Your task to perform on an android device: Add "acer nitro" to the cart on target, then select checkout. Image 0: 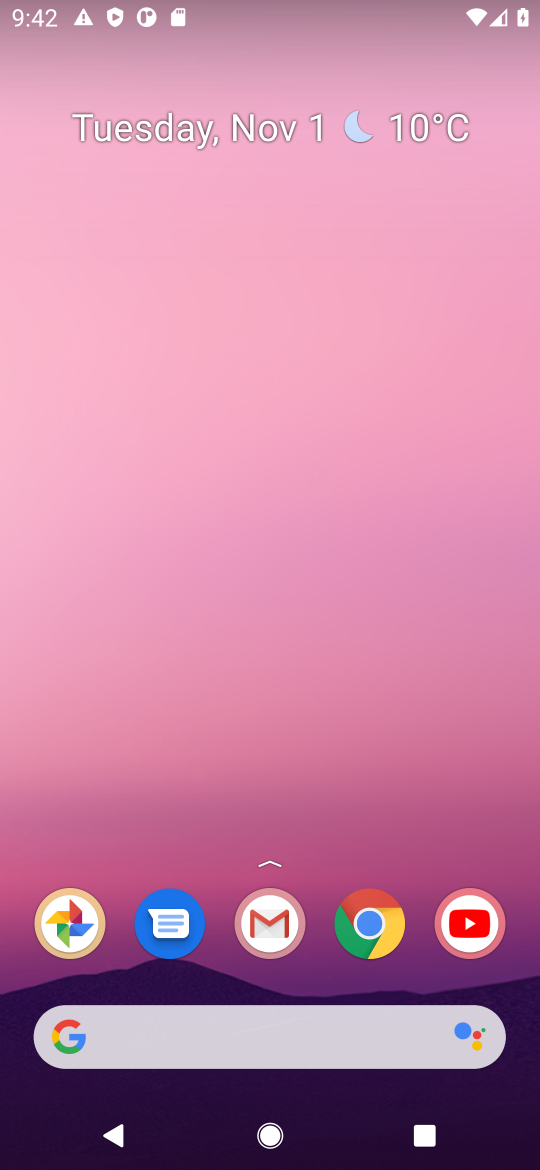
Step 0: drag from (331, 982) to (342, 113)
Your task to perform on an android device: Add "acer nitro" to the cart on target, then select checkout. Image 1: 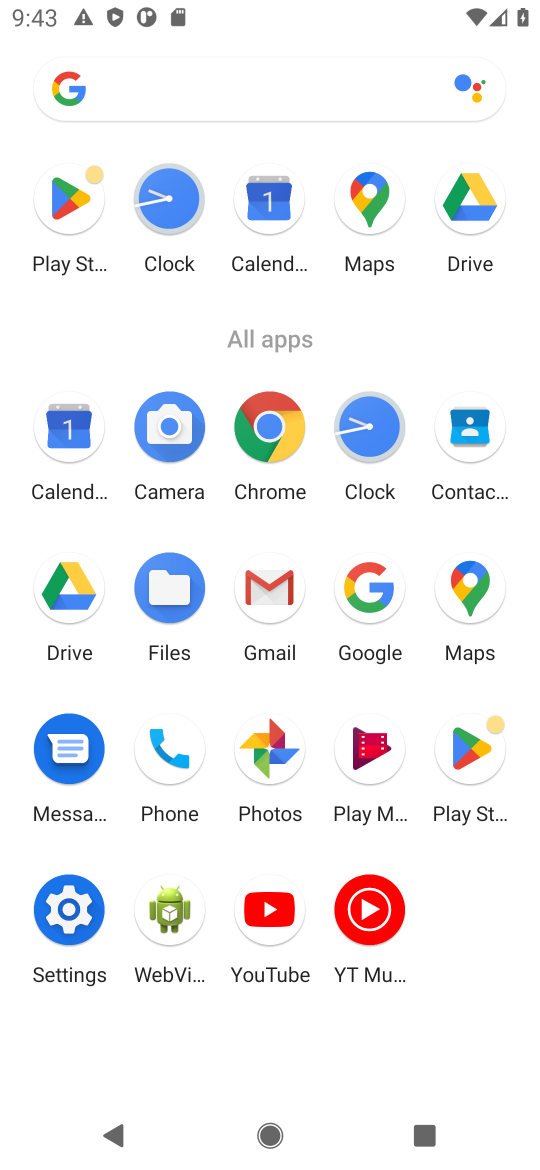
Step 1: click (270, 426)
Your task to perform on an android device: Add "acer nitro" to the cart on target, then select checkout. Image 2: 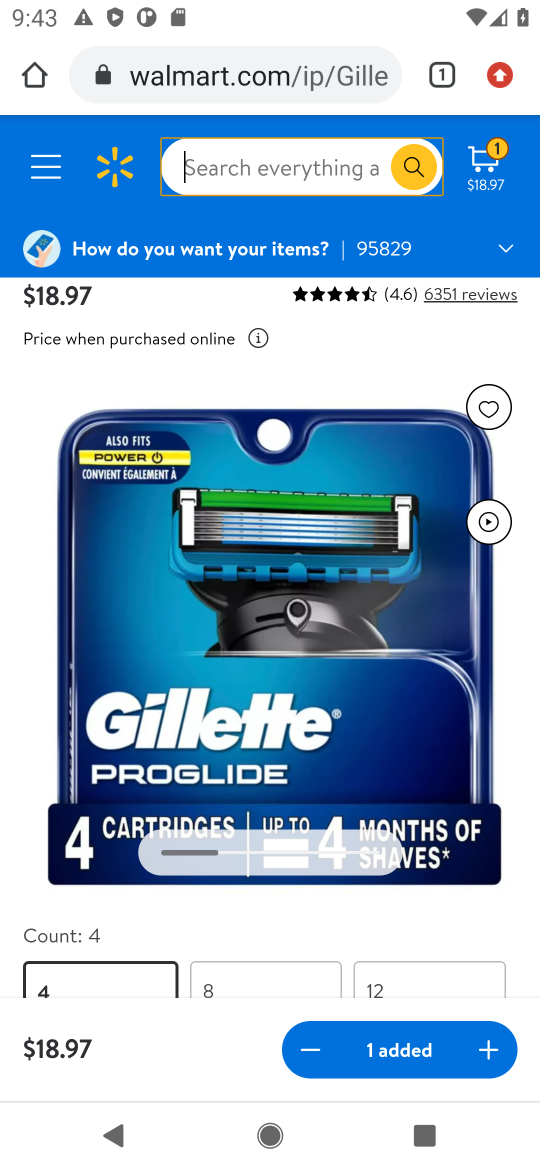
Step 2: click (326, 80)
Your task to perform on an android device: Add "acer nitro" to the cart on target, then select checkout. Image 3: 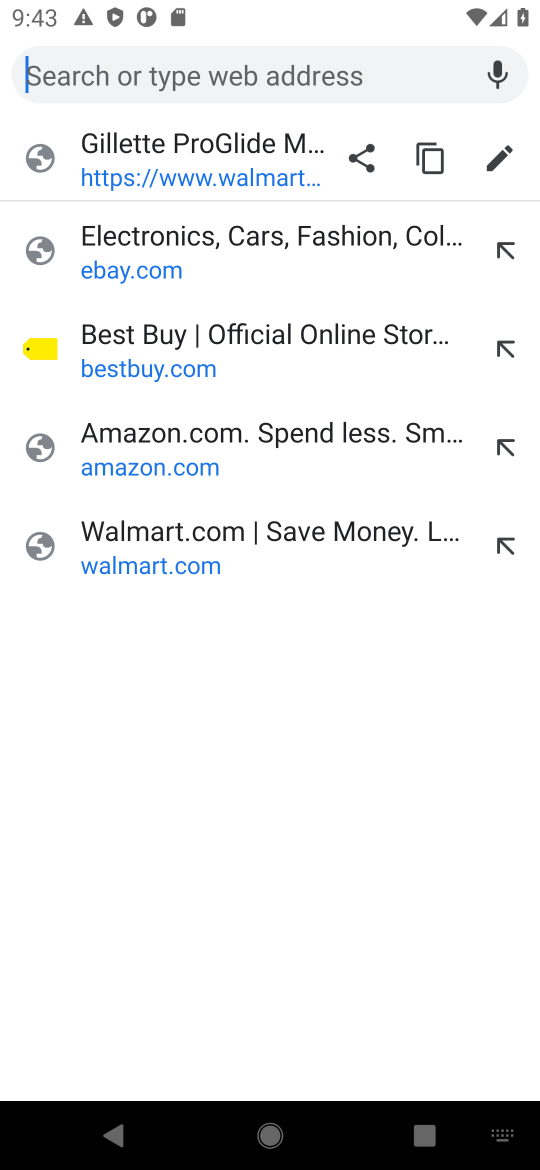
Step 3: type "target.com"
Your task to perform on an android device: Add "acer nitro" to the cart on target, then select checkout. Image 4: 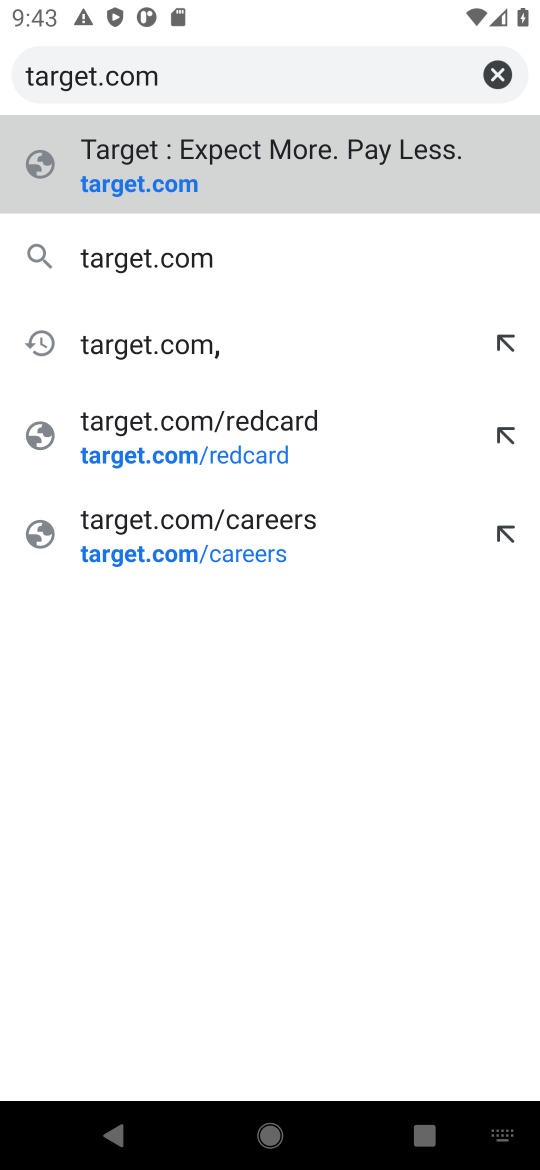
Step 4: press enter
Your task to perform on an android device: Add "acer nitro" to the cart on target, then select checkout. Image 5: 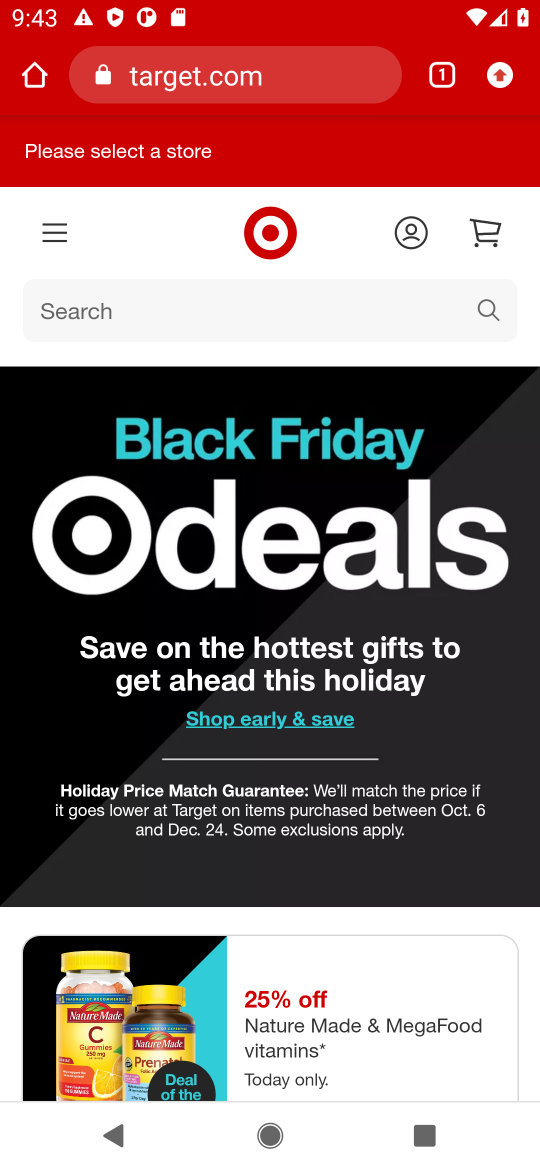
Step 5: drag from (372, 829) to (334, 271)
Your task to perform on an android device: Add "acer nitro" to the cart on target, then select checkout. Image 6: 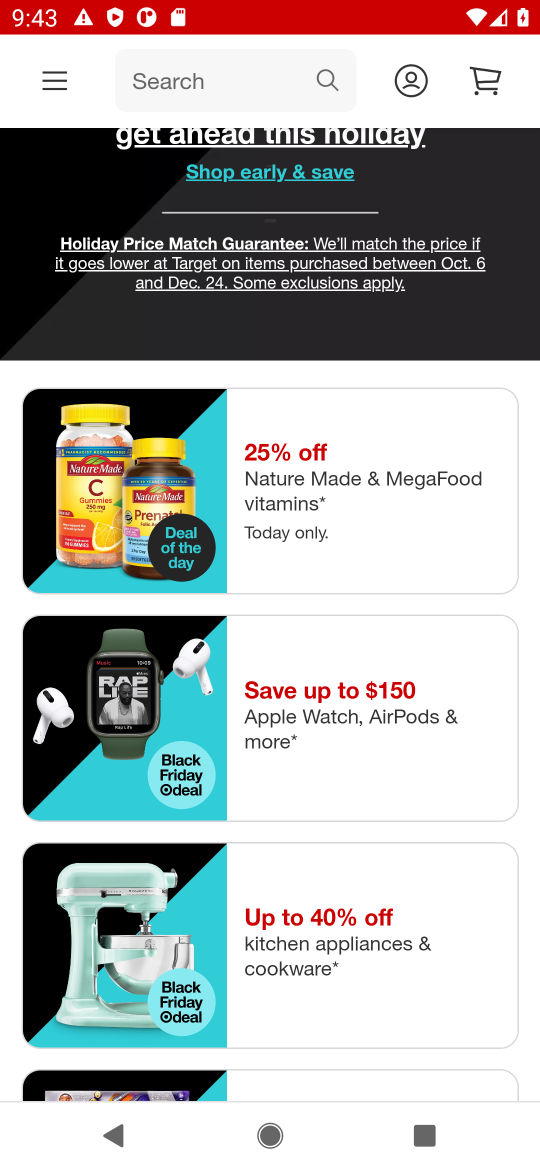
Step 6: drag from (326, 231) to (408, 870)
Your task to perform on an android device: Add "acer nitro" to the cart on target, then select checkout. Image 7: 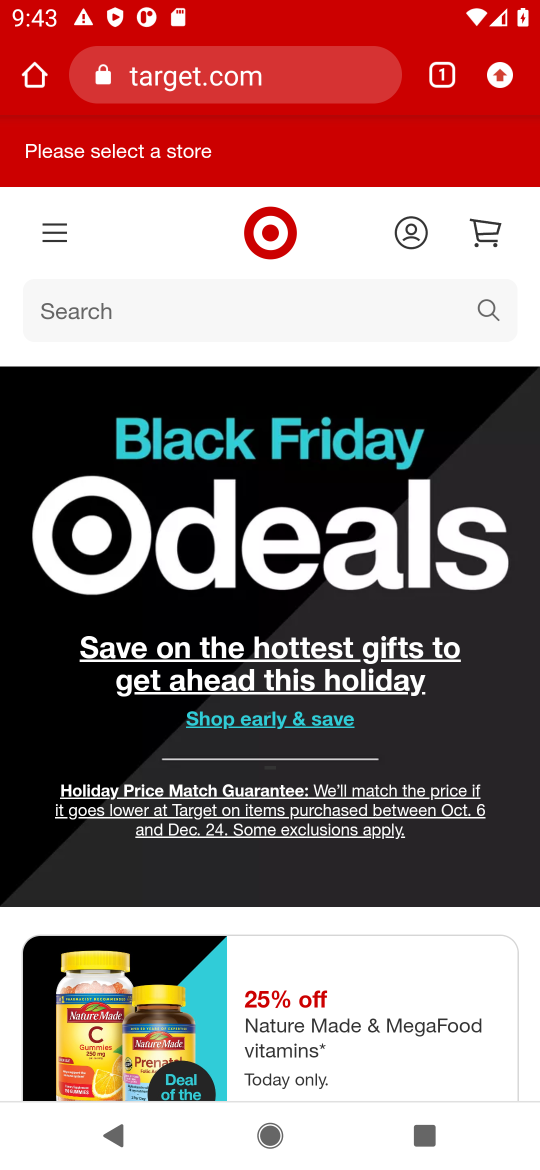
Step 7: click (287, 318)
Your task to perform on an android device: Add "acer nitro" to the cart on target, then select checkout. Image 8: 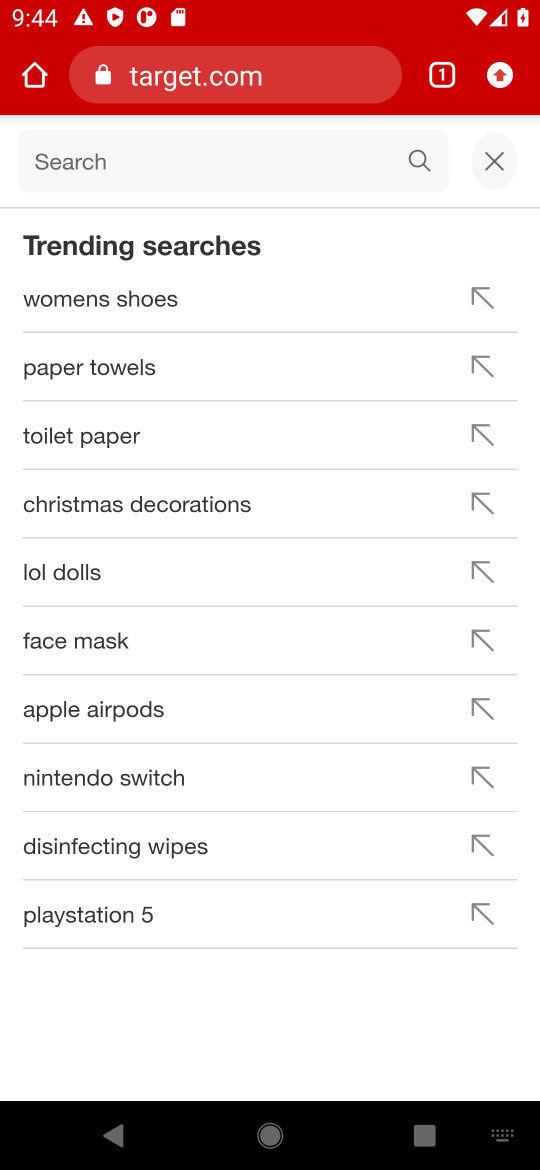
Step 8: type "acer nitro"
Your task to perform on an android device: Add "acer nitro" to the cart on target, then select checkout. Image 9: 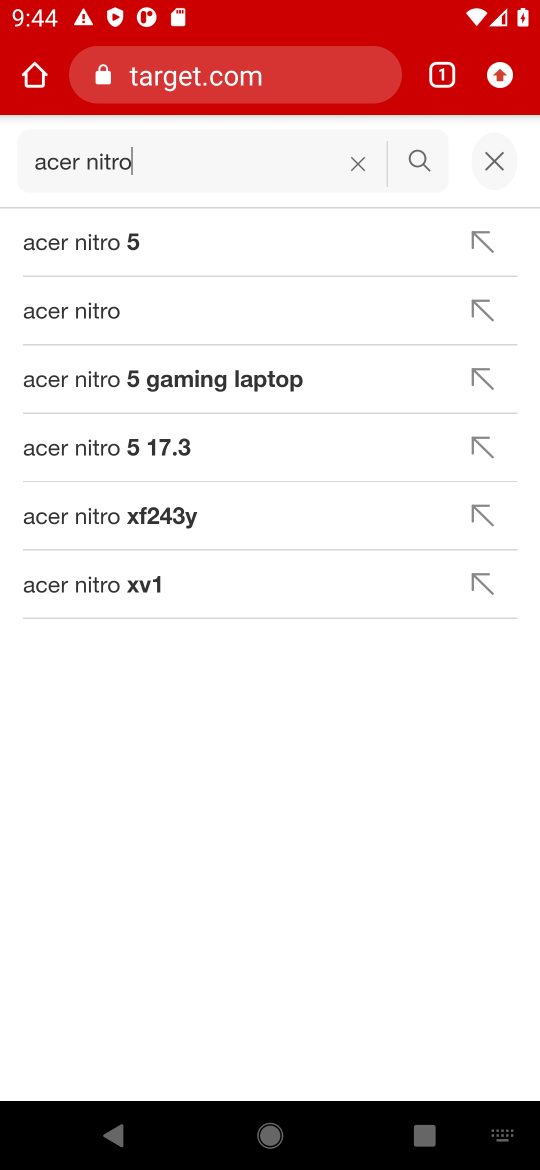
Step 9: press enter
Your task to perform on an android device: Add "acer nitro" to the cart on target, then select checkout. Image 10: 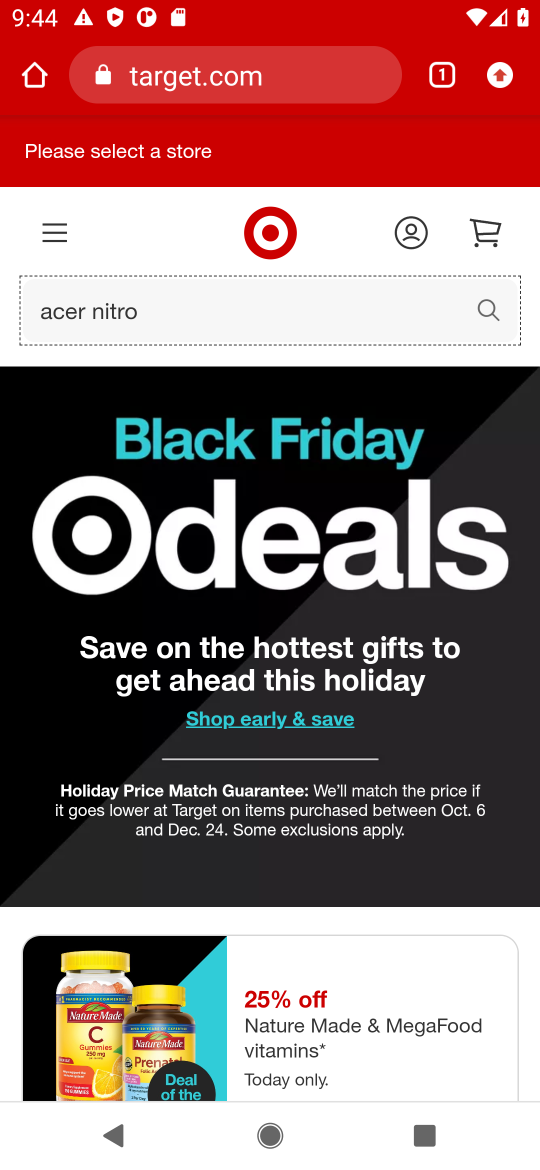
Step 10: press enter
Your task to perform on an android device: Add "acer nitro" to the cart on target, then select checkout. Image 11: 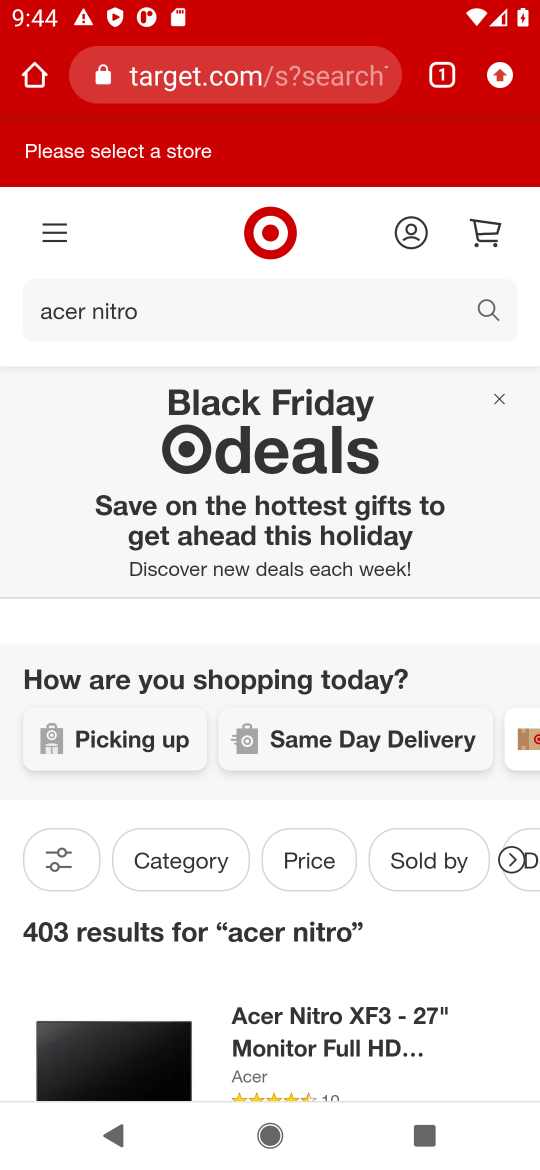
Step 11: drag from (399, 979) to (414, 412)
Your task to perform on an android device: Add "acer nitro" to the cart on target, then select checkout. Image 12: 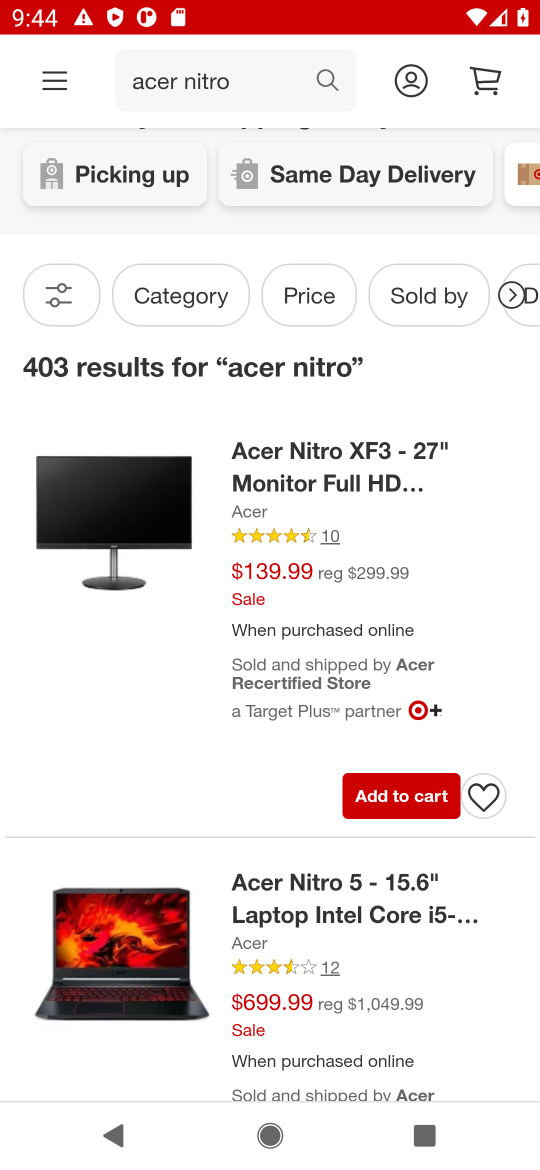
Step 12: click (417, 788)
Your task to perform on an android device: Add "acer nitro" to the cart on target, then select checkout. Image 13: 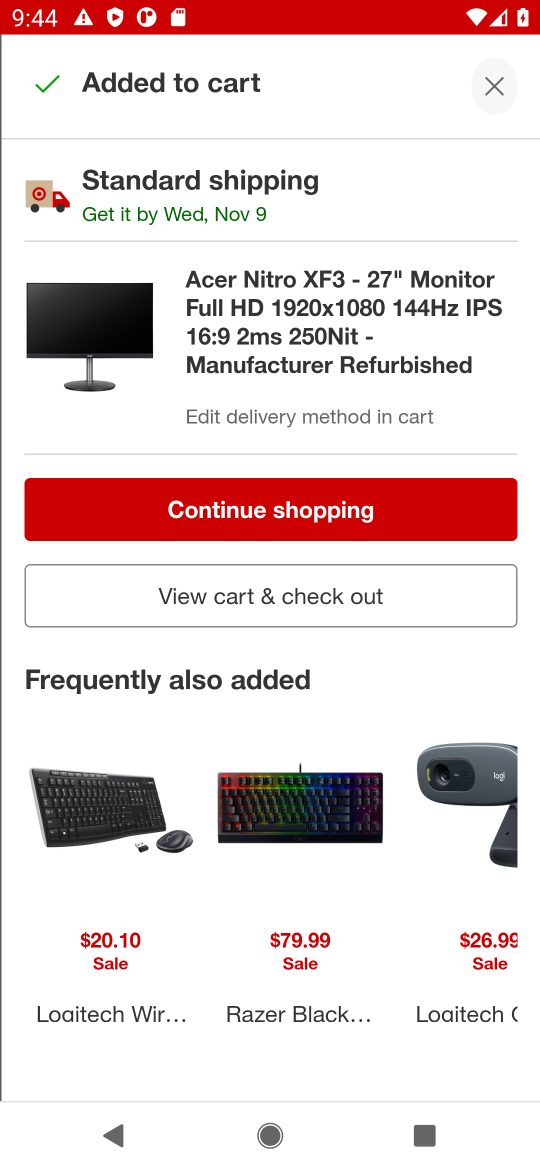
Step 13: click (302, 610)
Your task to perform on an android device: Add "acer nitro" to the cart on target, then select checkout. Image 14: 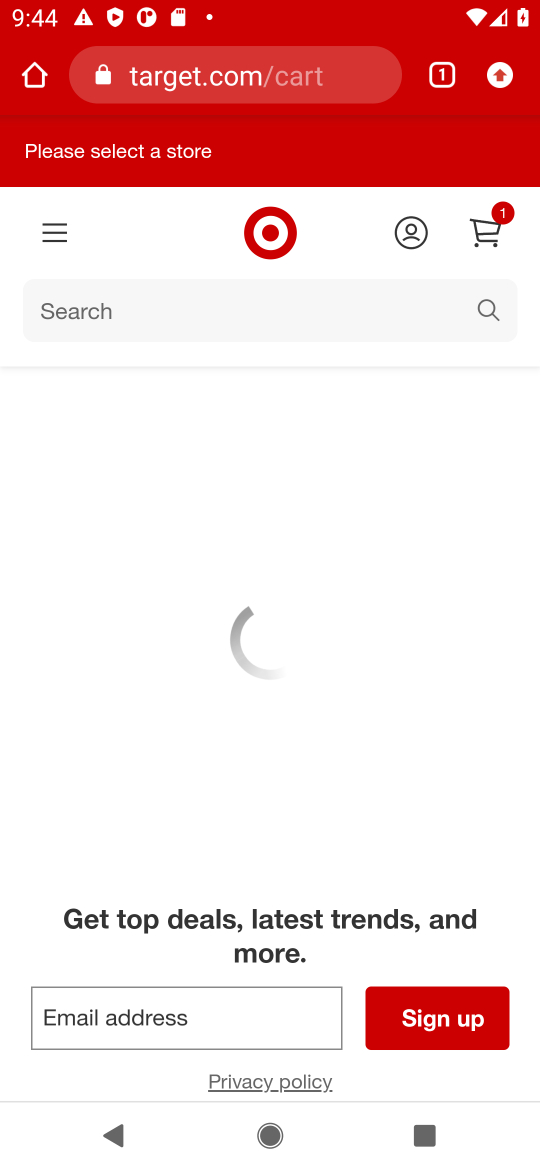
Step 14: task complete